Your task to perform on an android device: Open battery settings Image 0: 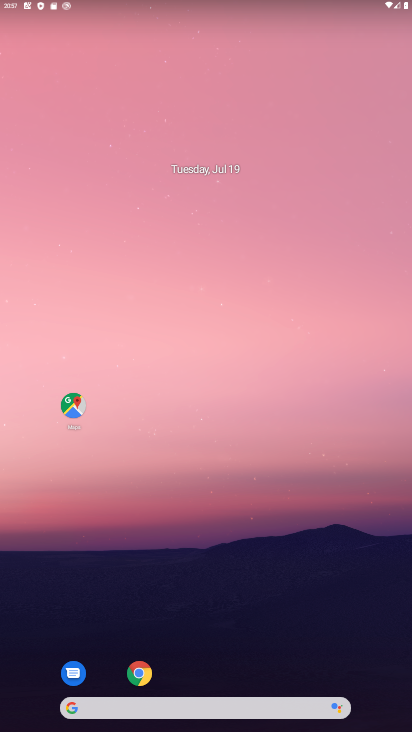
Step 0: drag from (209, 645) to (241, 72)
Your task to perform on an android device: Open battery settings Image 1: 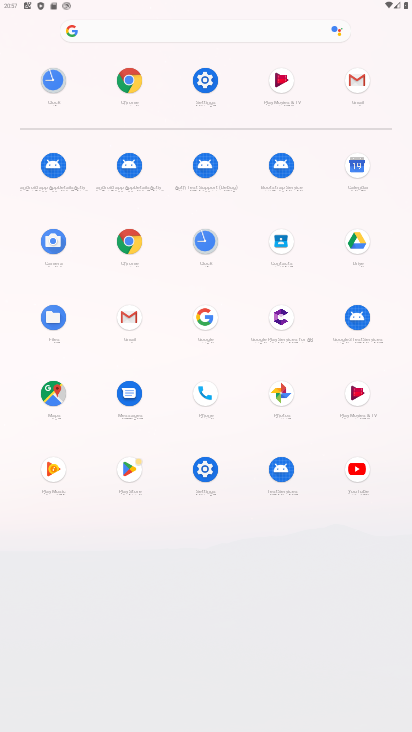
Step 1: click (203, 474)
Your task to perform on an android device: Open battery settings Image 2: 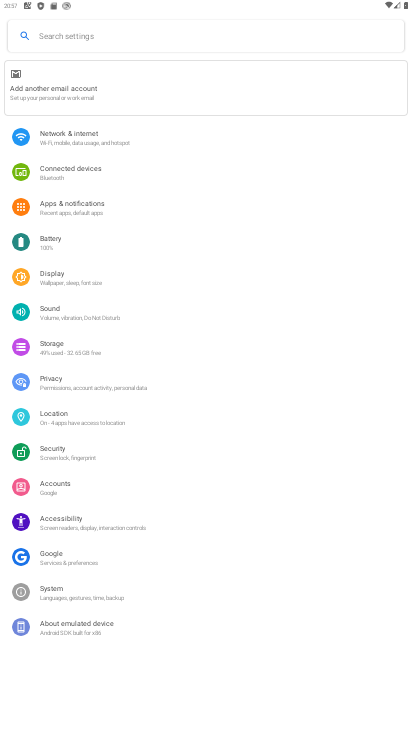
Step 2: click (69, 239)
Your task to perform on an android device: Open battery settings Image 3: 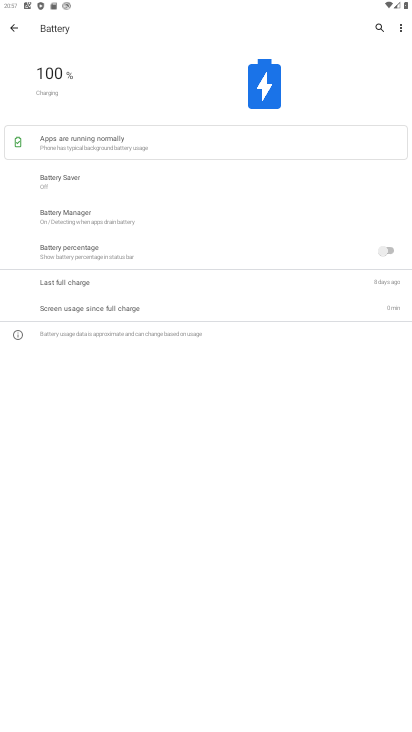
Step 3: task complete